Your task to perform on an android device: Open Wikipedia Image 0: 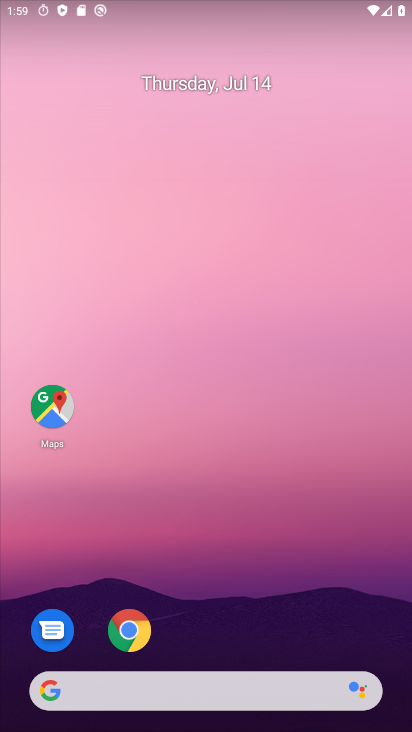
Step 0: drag from (191, 564) to (233, 257)
Your task to perform on an android device: Open Wikipedia Image 1: 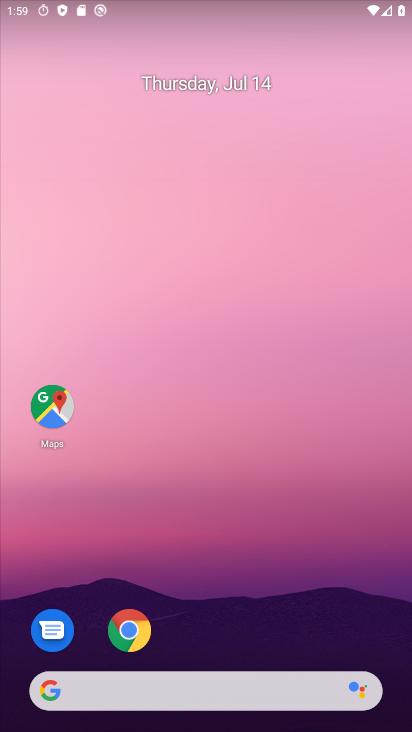
Step 1: drag from (186, 647) to (271, 98)
Your task to perform on an android device: Open Wikipedia Image 2: 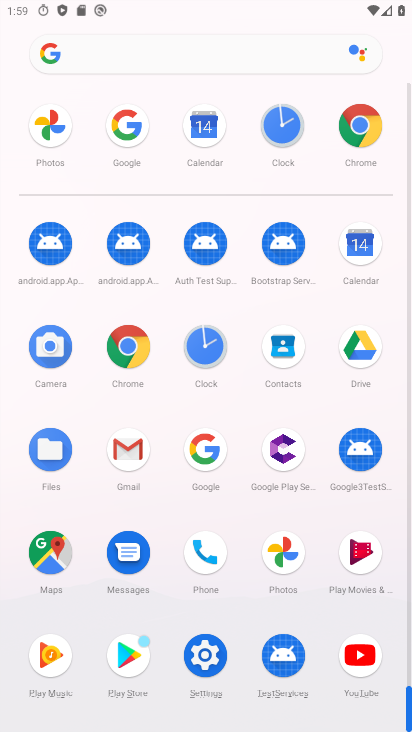
Step 2: click (201, 658)
Your task to perform on an android device: Open Wikipedia Image 3: 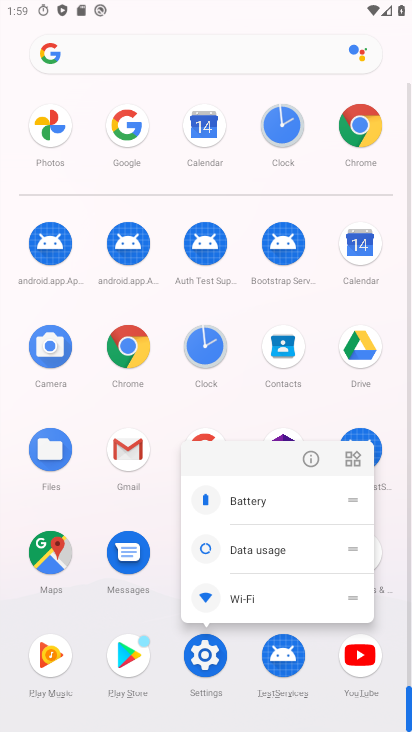
Step 3: click (320, 455)
Your task to perform on an android device: Open Wikipedia Image 4: 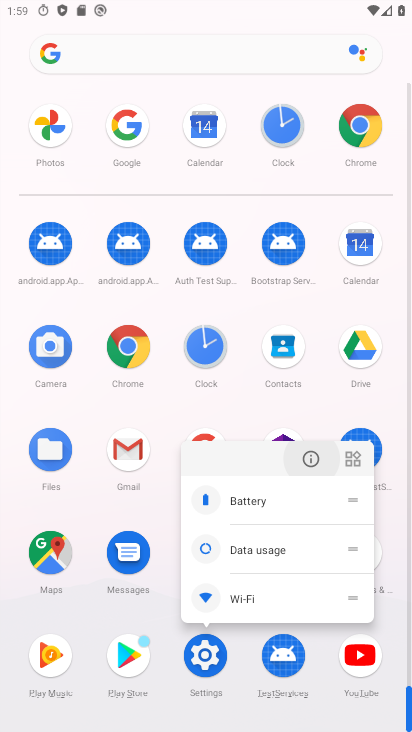
Step 4: click (320, 455)
Your task to perform on an android device: Open Wikipedia Image 5: 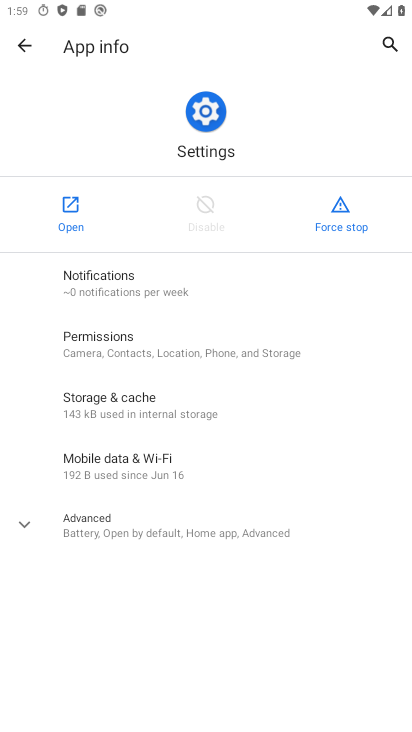
Step 5: press home button
Your task to perform on an android device: Open Wikipedia Image 6: 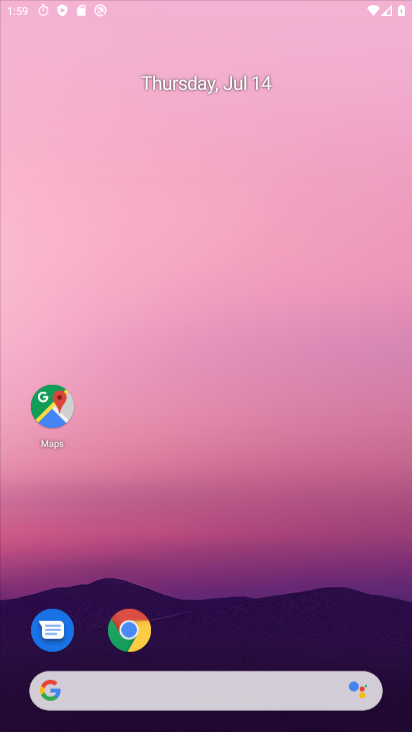
Step 6: drag from (203, 439) to (203, 313)
Your task to perform on an android device: Open Wikipedia Image 7: 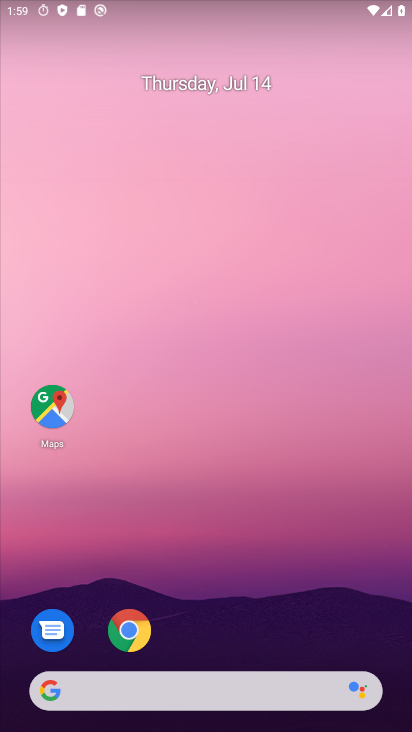
Step 7: drag from (190, 608) to (222, 8)
Your task to perform on an android device: Open Wikipedia Image 8: 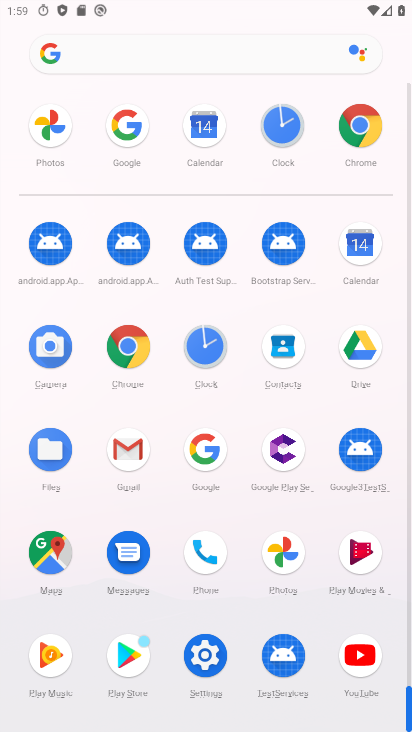
Step 8: click (125, 54)
Your task to perform on an android device: Open Wikipedia Image 9: 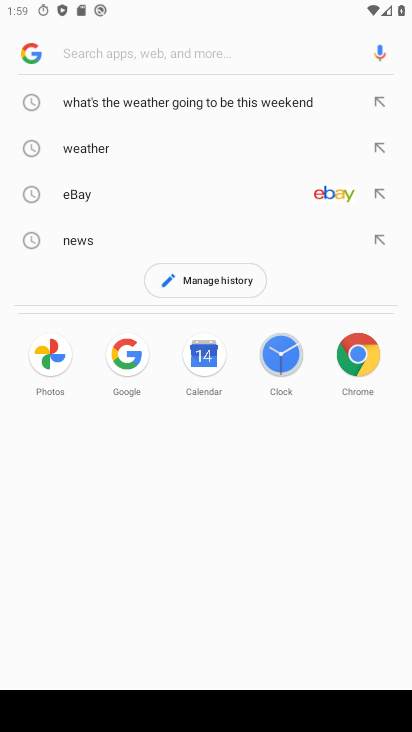
Step 9: type "Wikipedia"
Your task to perform on an android device: Open Wikipedia Image 10: 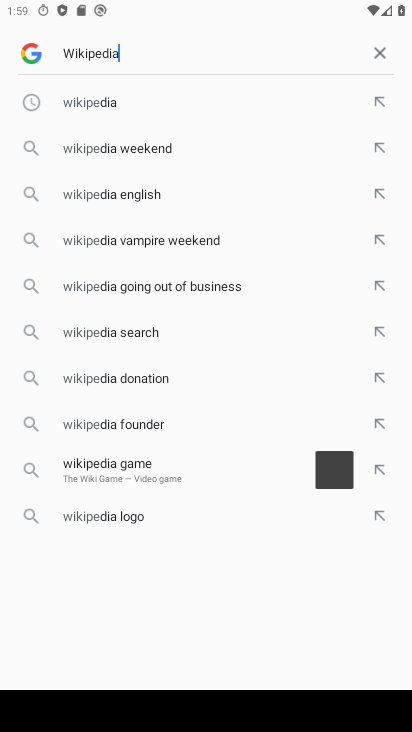
Step 10: type ""
Your task to perform on an android device: Open Wikipedia Image 11: 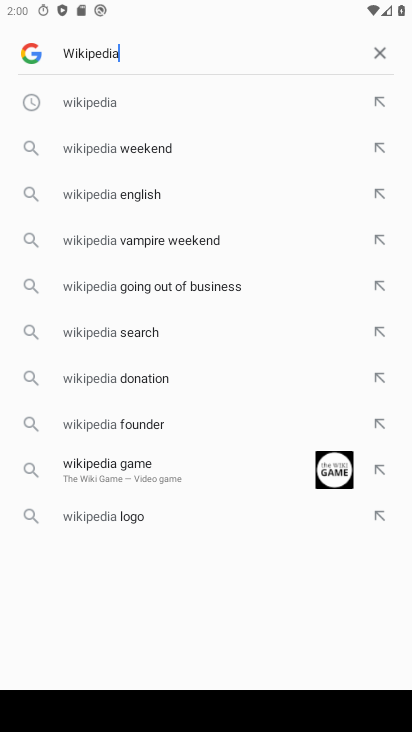
Step 11: click (118, 95)
Your task to perform on an android device: Open Wikipedia Image 12: 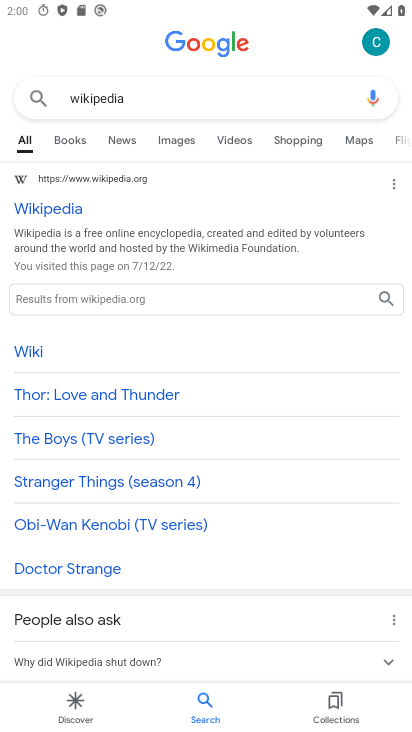
Step 12: click (56, 204)
Your task to perform on an android device: Open Wikipedia Image 13: 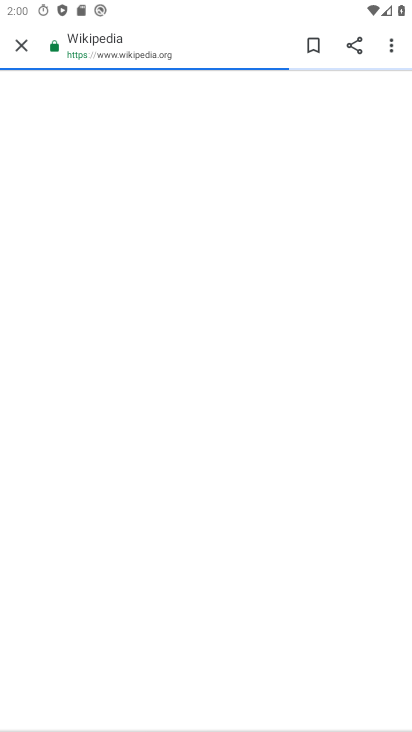
Step 13: task complete